Your task to perform on an android device: Go to Yahoo.com Image 0: 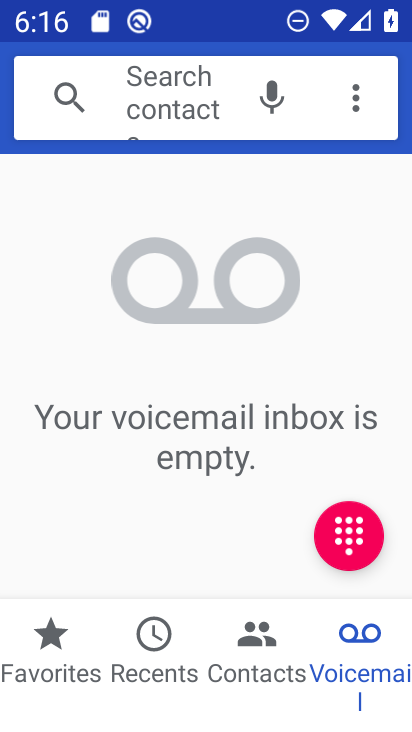
Step 0: press home button
Your task to perform on an android device: Go to Yahoo.com Image 1: 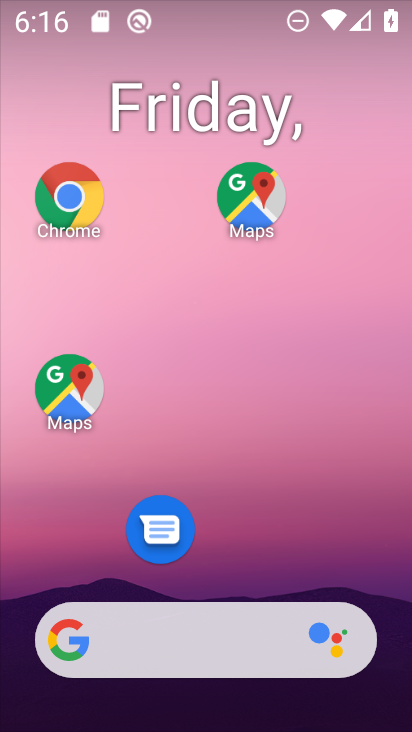
Step 1: click (82, 222)
Your task to perform on an android device: Go to Yahoo.com Image 2: 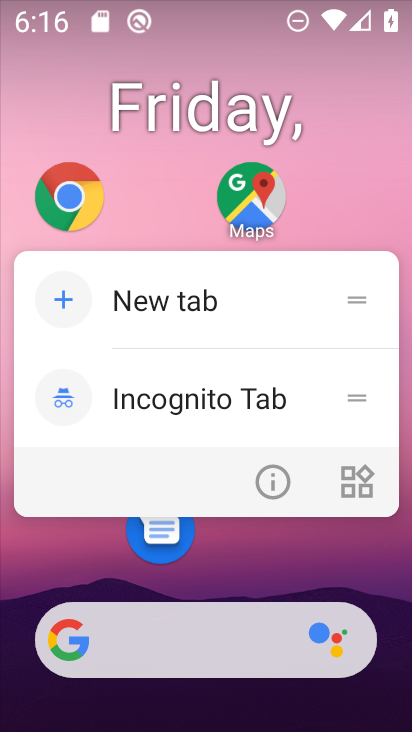
Step 2: click (62, 205)
Your task to perform on an android device: Go to Yahoo.com Image 3: 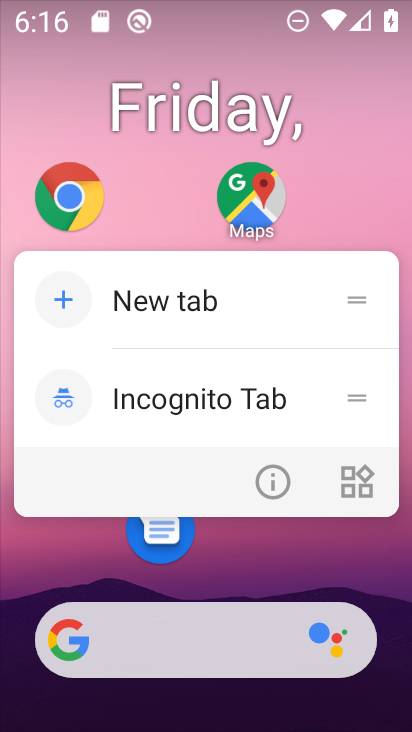
Step 3: click (68, 201)
Your task to perform on an android device: Go to Yahoo.com Image 4: 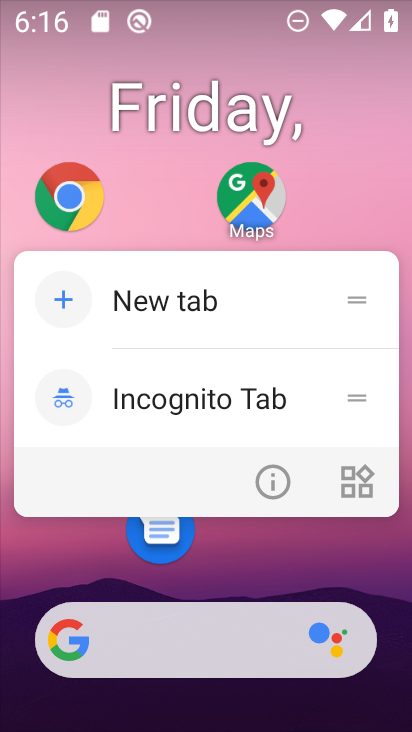
Step 4: click (71, 201)
Your task to perform on an android device: Go to Yahoo.com Image 5: 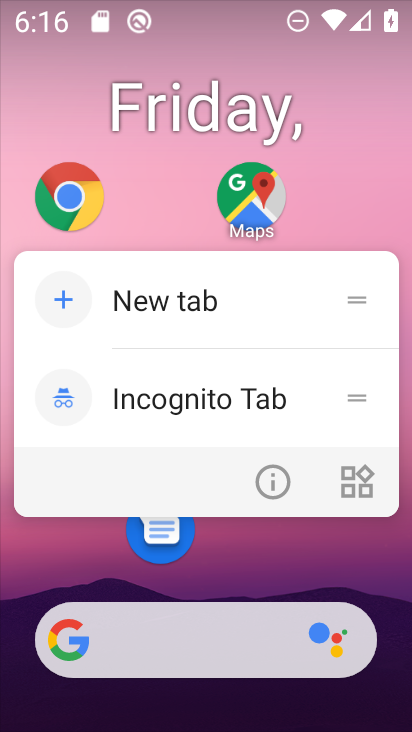
Step 5: click (71, 201)
Your task to perform on an android device: Go to Yahoo.com Image 6: 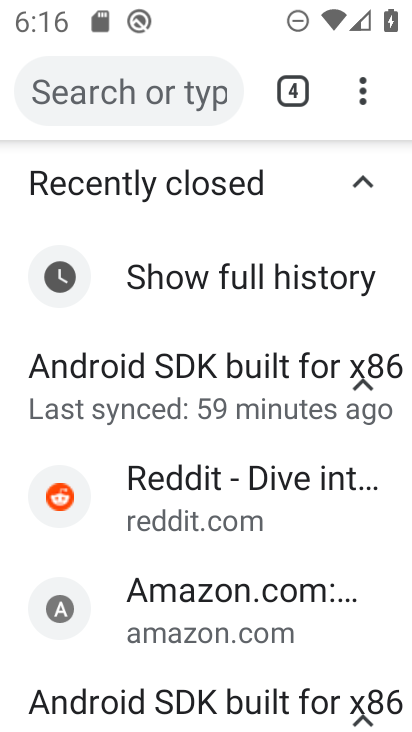
Step 6: press back button
Your task to perform on an android device: Go to Yahoo.com Image 7: 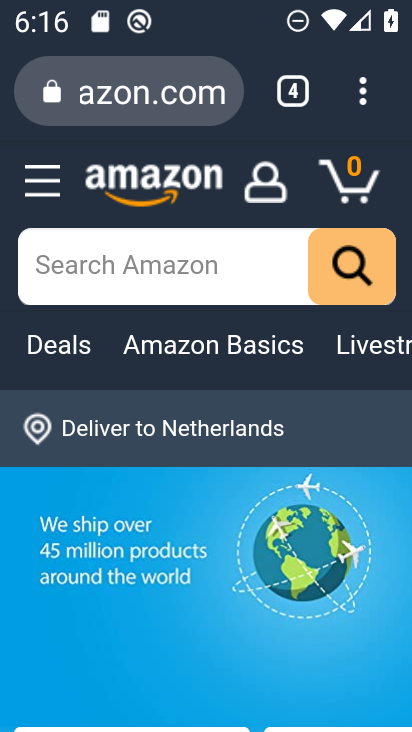
Step 7: press back button
Your task to perform on an android device: Go to Yahoo.com Image 8: 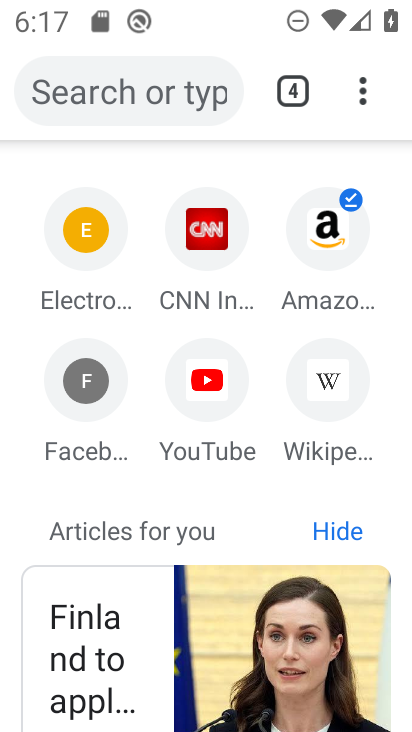
Step 8: click (166, 96)
Your task to perform on an android device: Go to Yahoo.com Image 9: 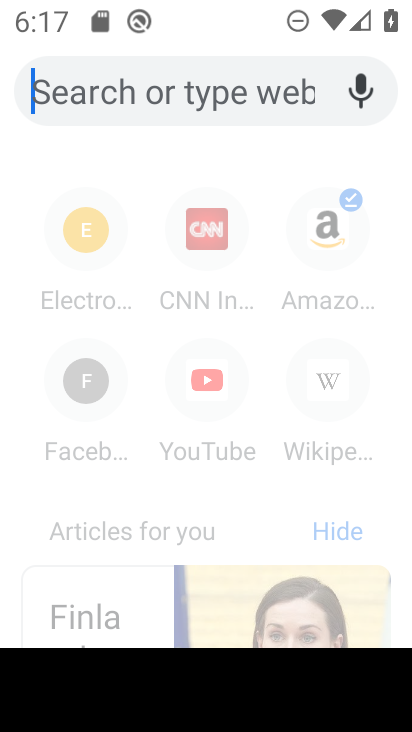
Step 9: type "www.yahoo.com"
Your task to perform on an android device: Go to Yahoo.com Image 10: 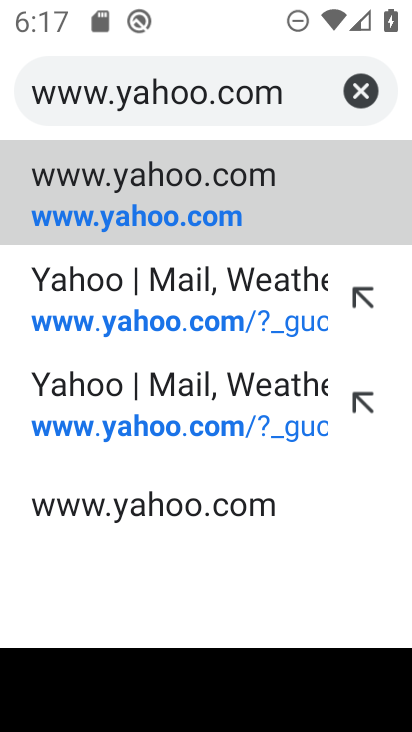
Step 10: click (157, 185)
Your task to perform on an android device: Go to Yahoo.com Image 11: 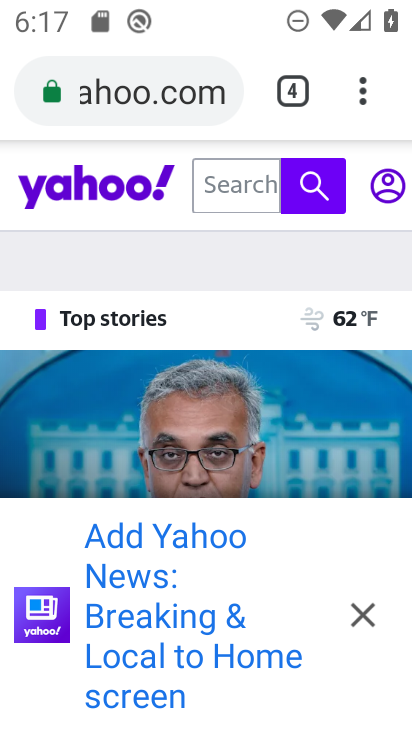
Step 11: task complete